Your task to perform on an android device: Open Google Maps and go to "Timeline" Image 0: 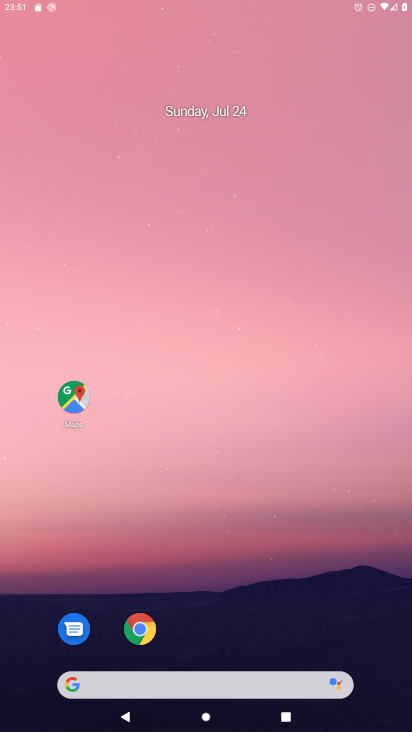
Step 0: click (229, 144)
Your task to perform on an android device: Open Google Maps and go to "Timeline" Image 1: 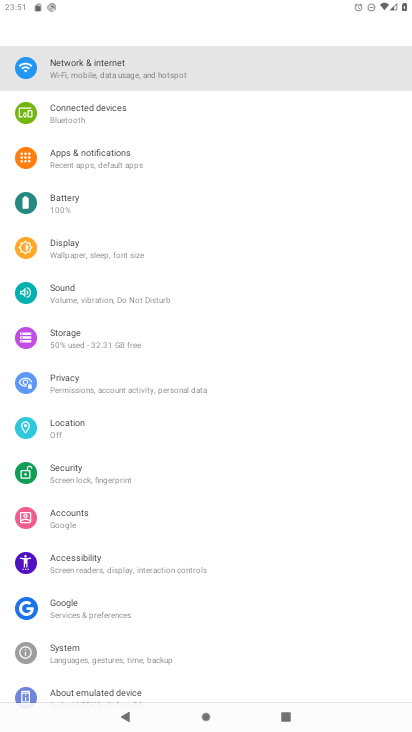
Step 1: drag from (208, 656) to (256, 180)
Your task to perform on an android device: Open Google Maps and go to "Timeline" Image 2: 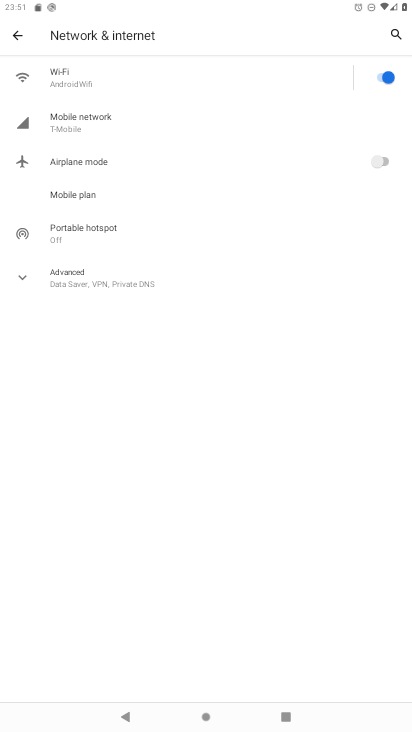
Step 2: press home button
Your task to perform on an android device: Open Google Maps and go to "Timeline" Image 3: 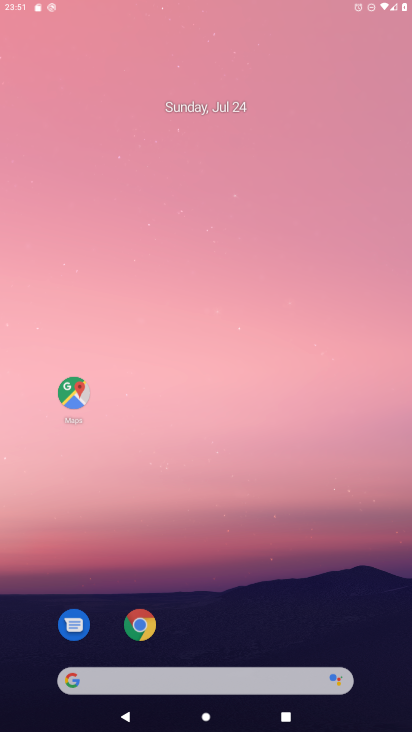
Step 3: drag from (246, 546) to (198, 91)
Your task to perform on an android device: Open Google Maps and go to "Timeline" Image 4: 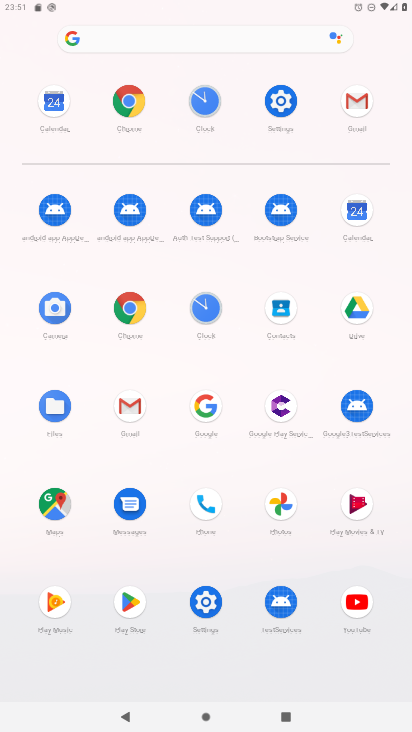
Step 4: drag from (234, 629) to (250, 226)
Your task to perform on an android device: Open Google Maps and go to "Timeline" Image 5: 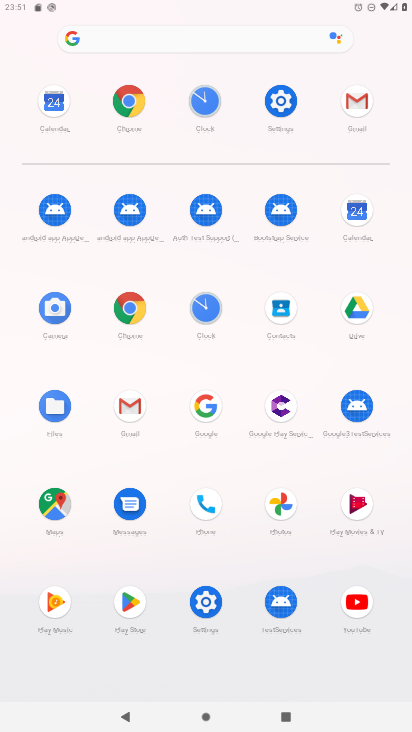
Step 5: click (58, 502)
Your task to perform on an android device: Open Google Maps and go to "Timeline" Image 6: 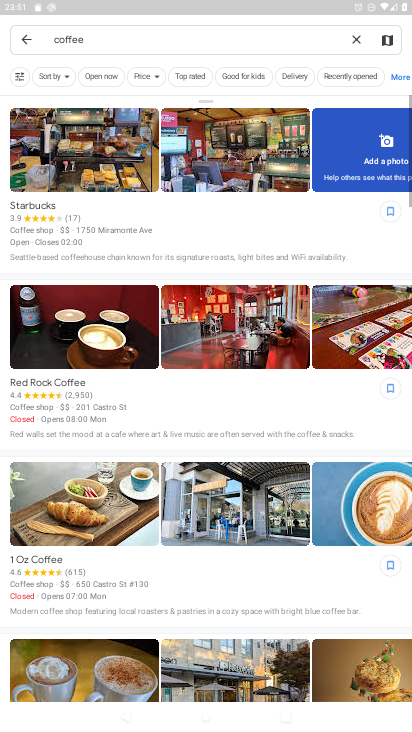
Step 6: drag from (225, 651) to (269, 168)
Your task to perform on an android device: Open Google Maps and go to "Timeline" Image 7: 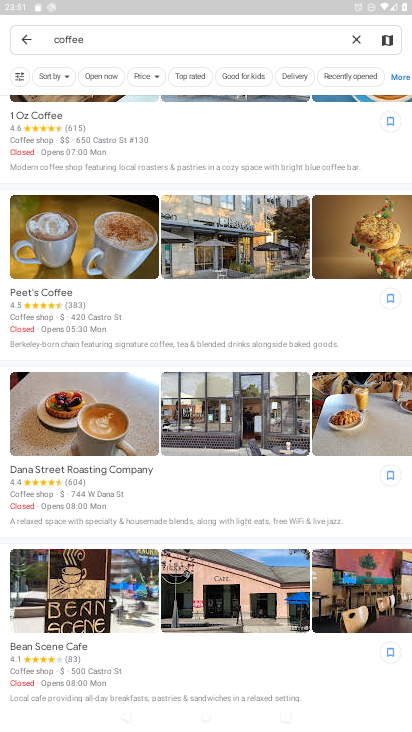
Step 7: click (21, 40)
Your task to perform on an android device: Open Google Maps and go to "Timeline" Image 8: 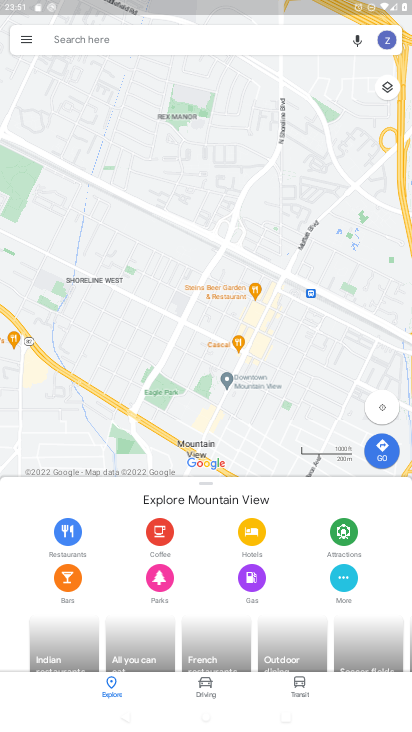
Step 8: click (31, 39)
Your task to perform on an android device: Open Google Maps and go to "Timeline" Image 9: 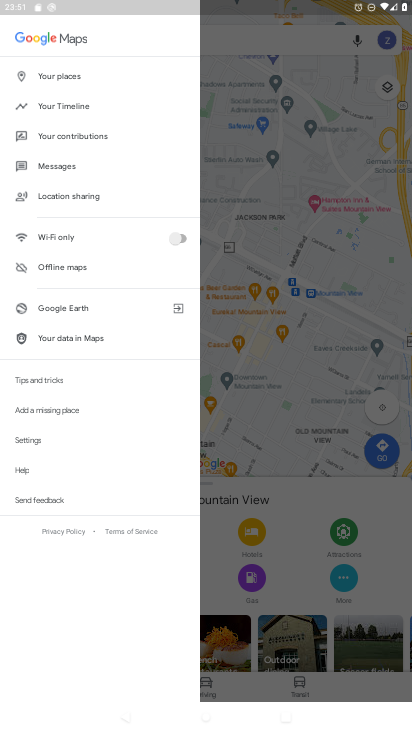
Step 9: click (57, 115)
Your task to perform on an android device: Open Google Maps and go to "Timeline" Image 10: 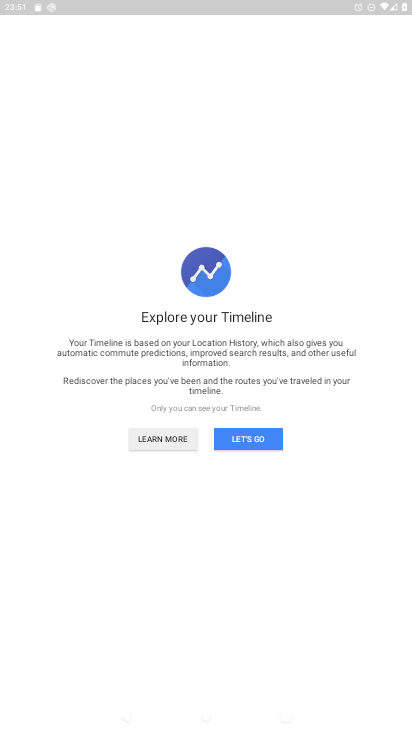
Step 10: drag from (258, 493) to (267, 250)
Your task to perform on an android device: Open Google Maps and go to "Timeline" Image 11: 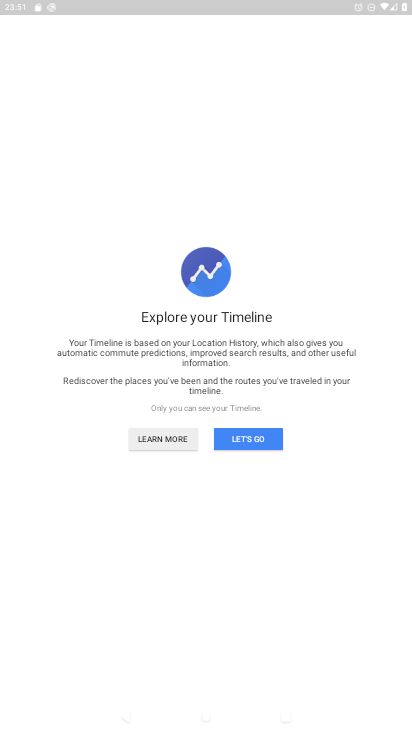
Step 11: click (255, 433)
Your task to perform on an android device: Open Google Maps and go to "Timeline" Image 12: 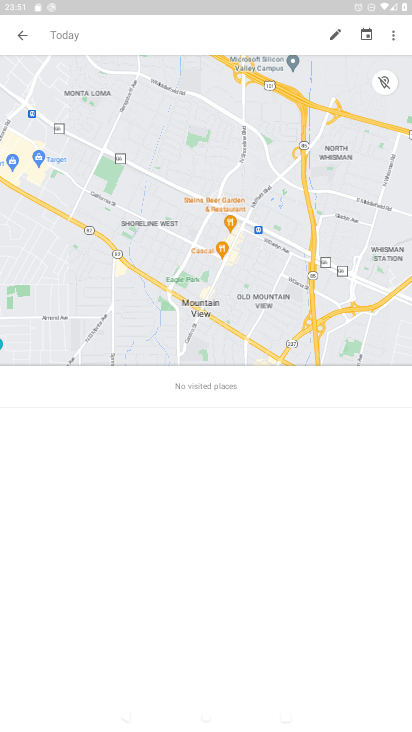
Step 12: task complete